Your task to perform on an android device: check data usage Image 0: 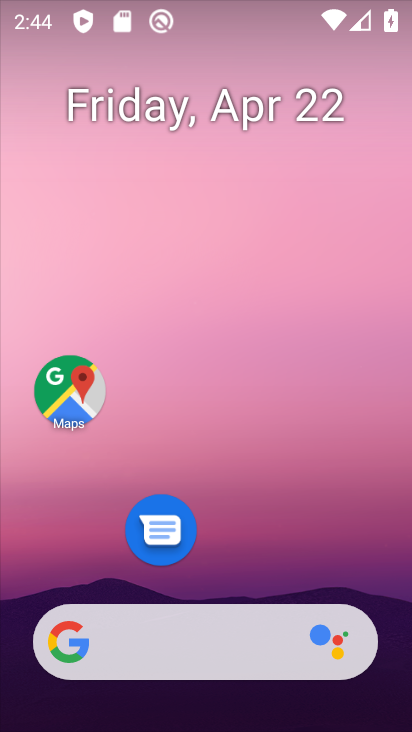
Step 0: drag from (258, 308) to (240, 39)
Your task to perform on an android device: check data usage Image 1: 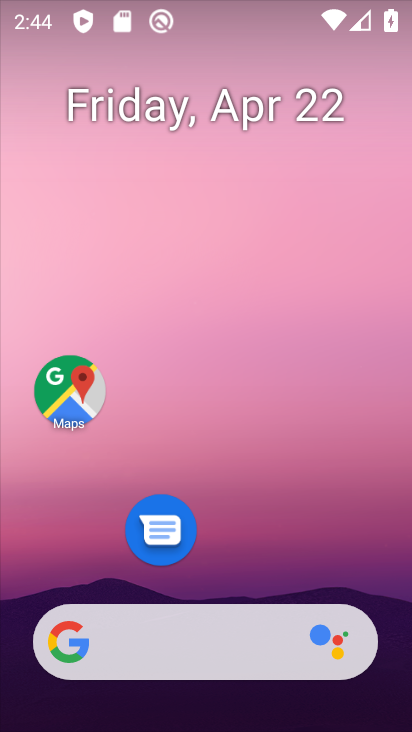
Step 1: drag from (240, 563) to (286, 14)
Your task to perform on an android device: check data usage Image 2: 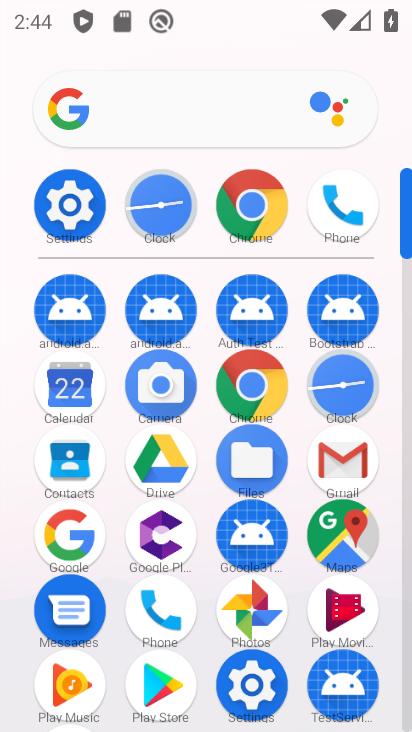
Step 2: click (72, 206)
Your task to perform on an android device: check data usage Image 3: 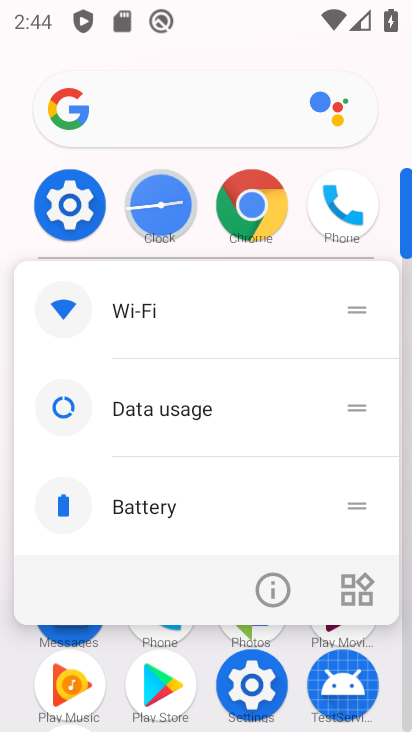
Step 3: click (77, 207)
Your task to perform on an android device: check data usage Image 4: 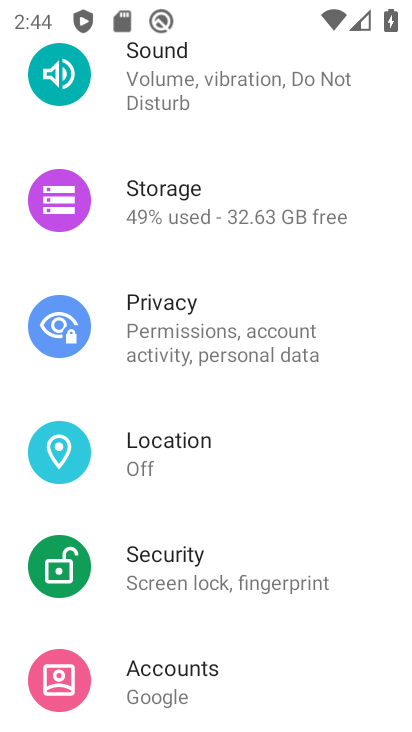
Step 4: click (240, 719)
Your task to perform on an android device: check data usage Image 5: 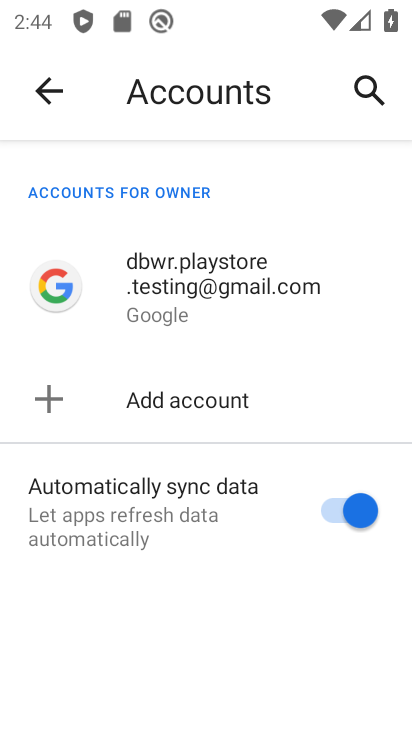
Step 5: click (46, 96)
Your task to perform on an android device: check data usage Image 6: 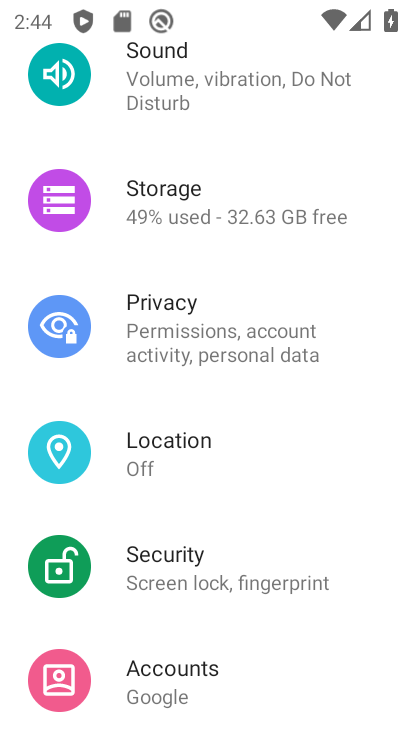
Step 6: drag from (252, 206) to (247, 627)
Your task to perform on an android device: check data usage Image 7: 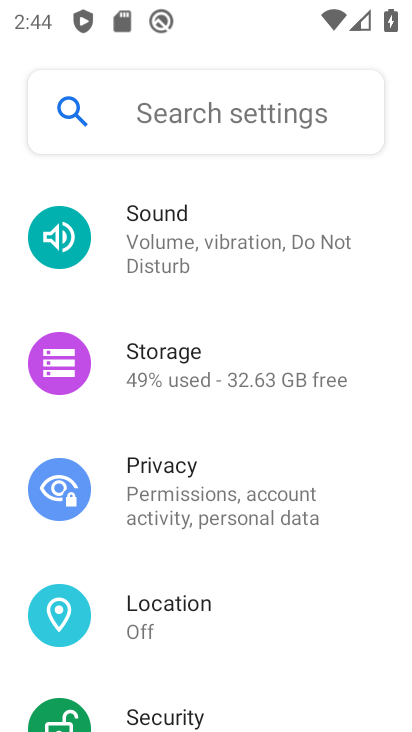
Step 7: drag from (253, 253) to (242, 716)
Your task to perform on an android device: check data usage Image 8: 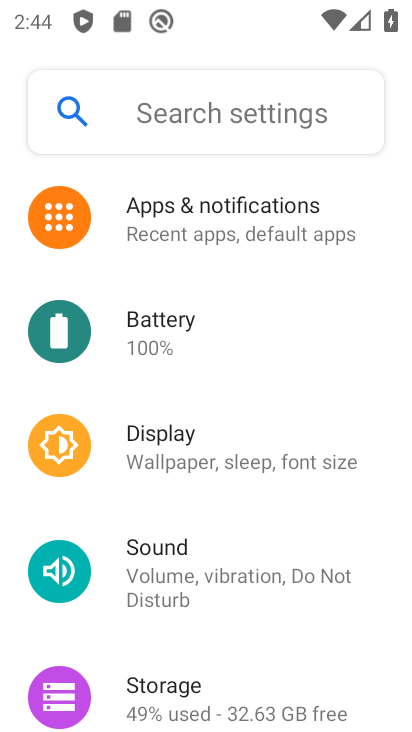
Step 8: drag from (222, 593) to (245, 714)
Your task to perform on an android device: check data usage Image 9: 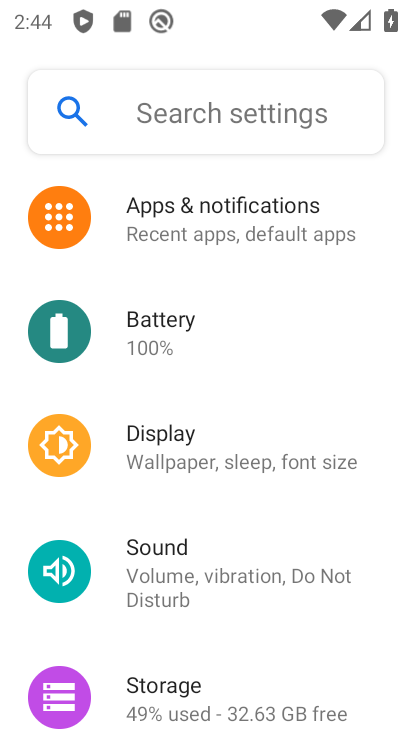
Step 9: click (186, 565)
Your task to perform on an android device: check data usage Image 10: 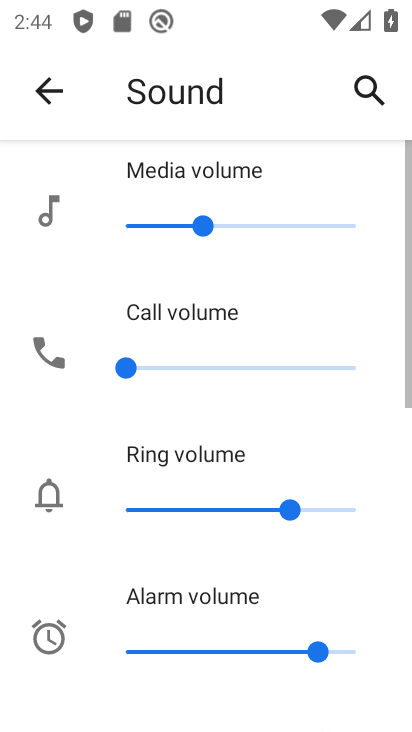
Step 10: drag from (225, 233) to (216, 645)
Your task to perform on an android device: check data usage Image 11: 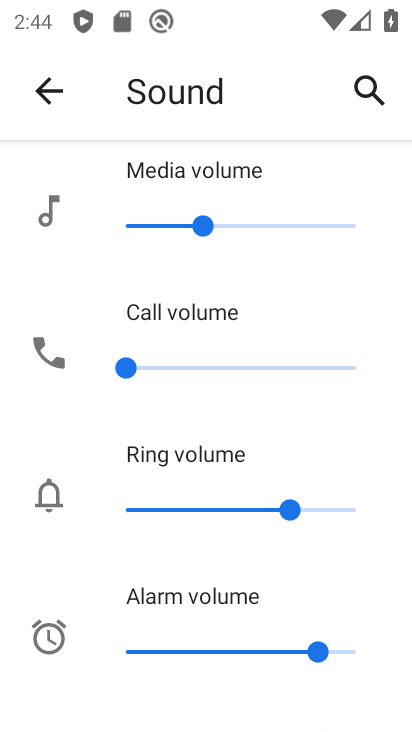
Step 11: click (46, 82)
Your task to perform on an android device: check data usage Image 12: 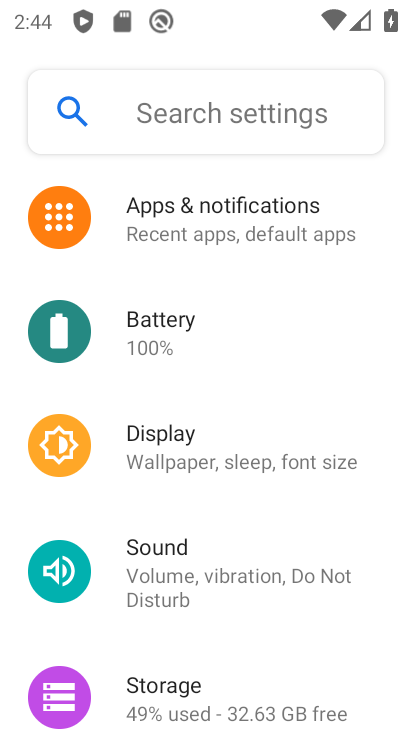
Step 12: drag from (215, 263) to (190, 684)
Your task to perform on an android device: check data usage Image 13: 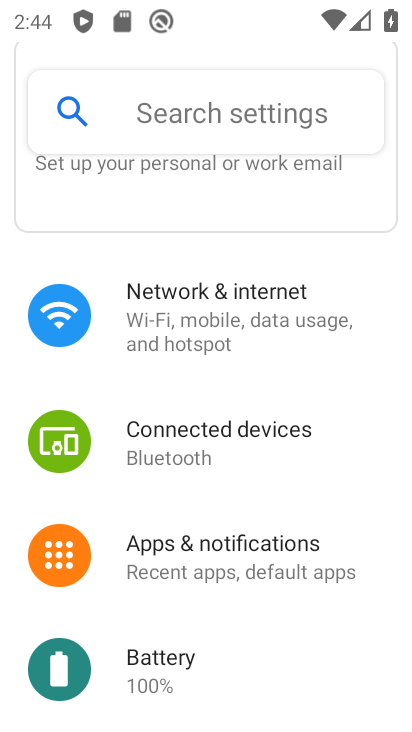
Step 13: click (178, 304)
Your task to perform on an android device: check data usage Image 14: 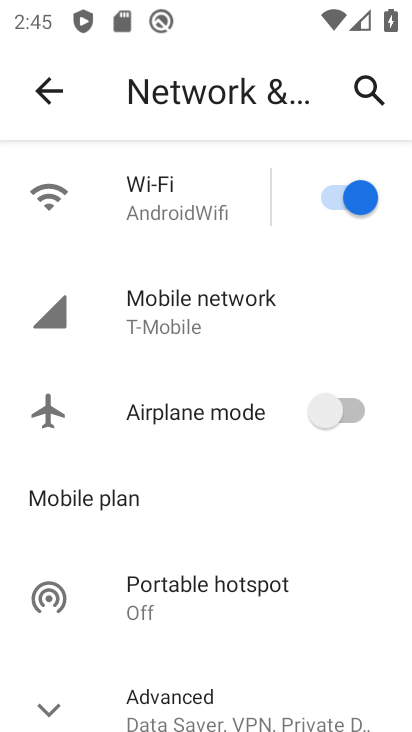
Step 14: click (202, 302)
Your task to perform on an android device: check data usage Image 15: 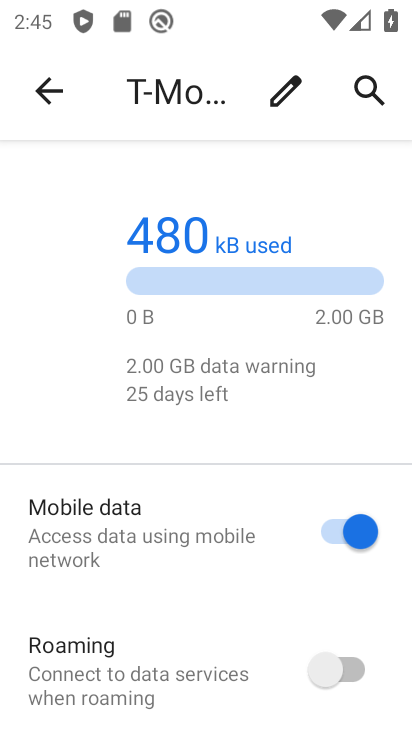
Step 15: task complete